Your task to perform on an android device: Go to Google maps Image 0: 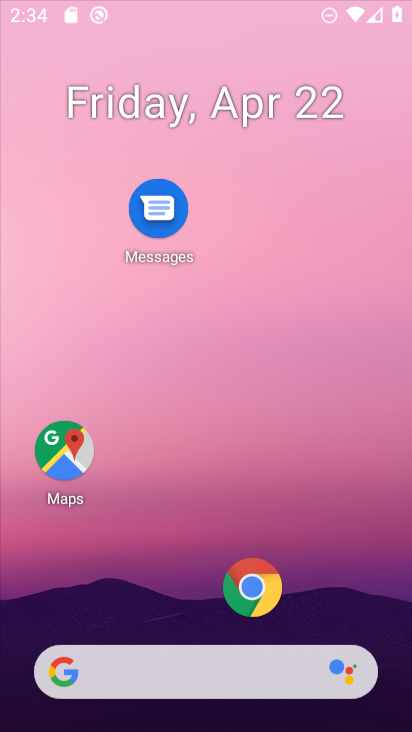
Step 0: drag from (191, 600) to (78, 203)
Your task to perform on an android device: Go to Google maps Image 1: 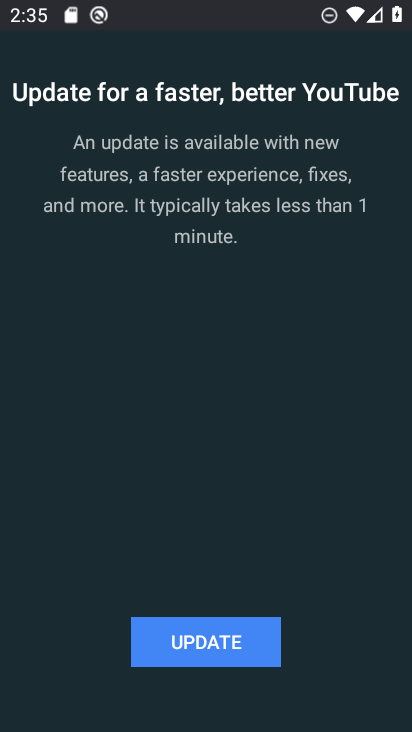
Step 1: press home button
Your task to perform on an android device: Go to Google maps Image 2: 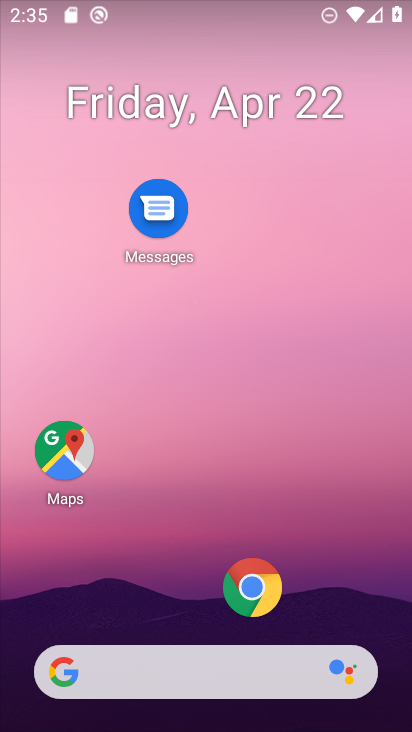
Step 2: click (45, 461)
Your task to perform on an android device: Go to Google maps Image 3: 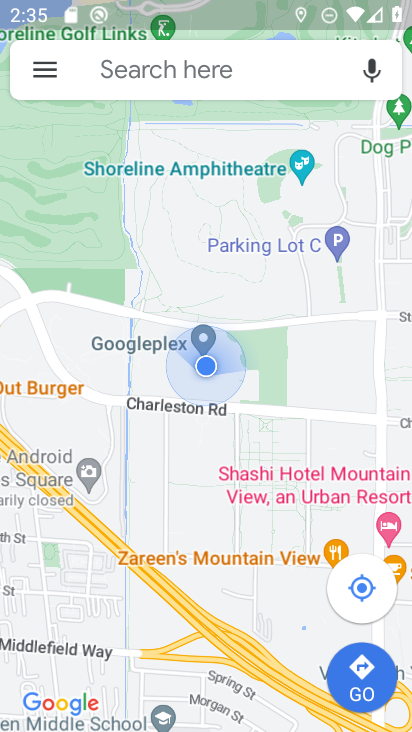
Step 3: task complete